Your task to perform on an android device: turn on the 24-hour format for clock Image 0: 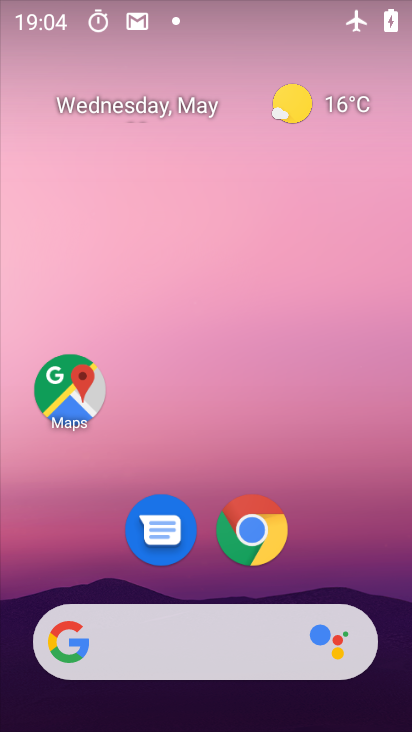
Step 0: drag from (181, 572) to (236, 239)
Your task to perform on an android device: turn on the 24-hour format for clock Image 1: 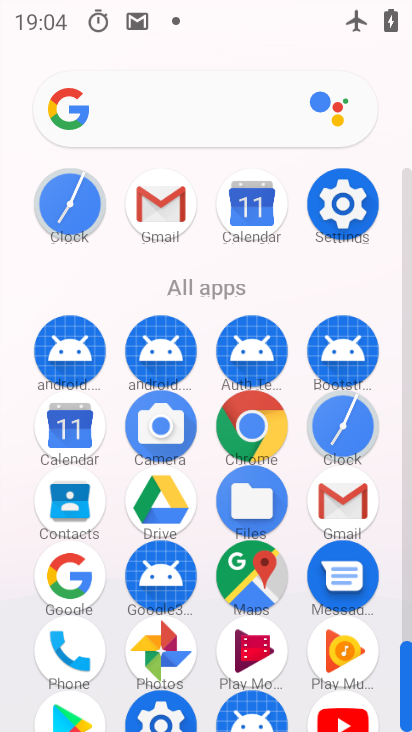
Step 1: click (349, 416)
Your task to perform on an android device: turn on the 24-hour format for clock Image 2: 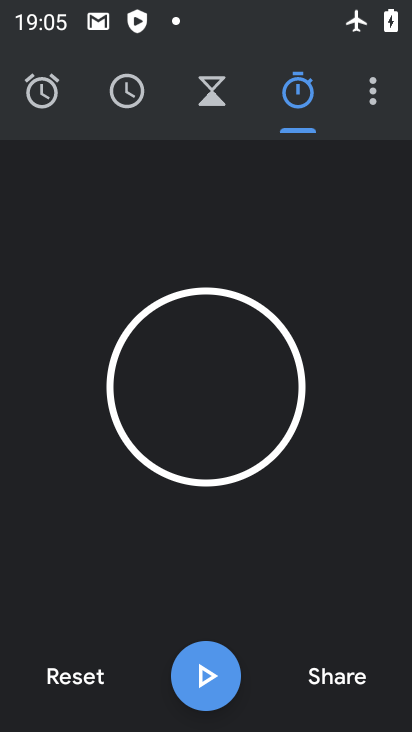
Step 2: click (366, 93)
Your task to perform on an android device: turn on the 24-hour format for clock Image 3: 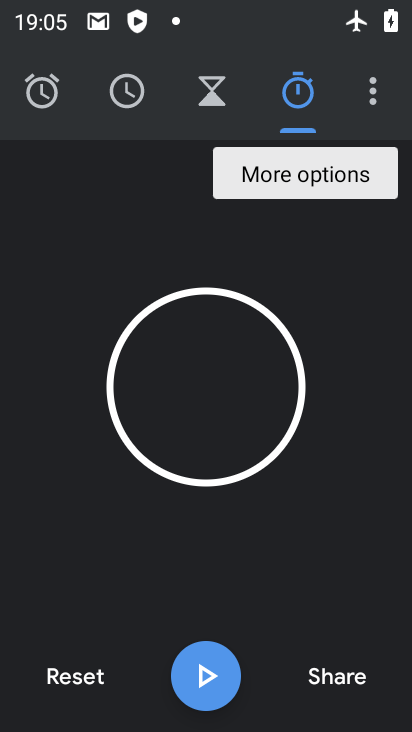
Step 3: click (366, 93)
Your task to perform on an android device: turn on the 24-hour format for clock Image 4: 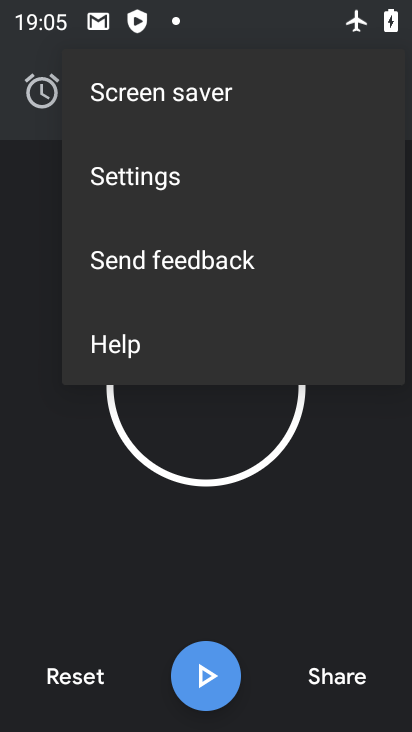
Step 4: click (168, 166)
Your task to perform on an android device: turn on the 24-hour format for clock Image 5: 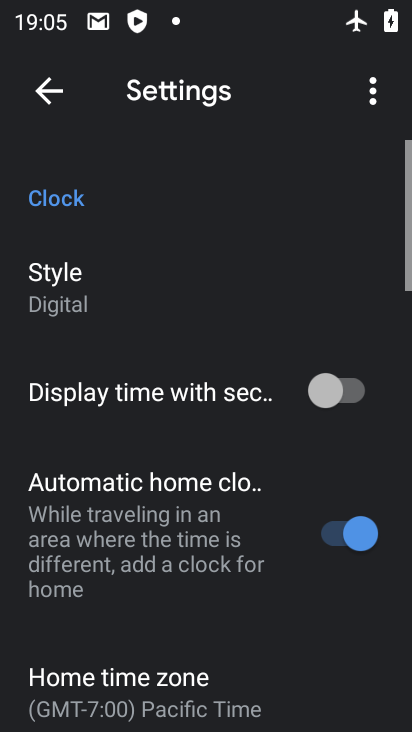
Step 5: drag from (208, 526) to (270, 174)
Your task to perform on an android device: turn on the 24-hour format for clock Image 6: 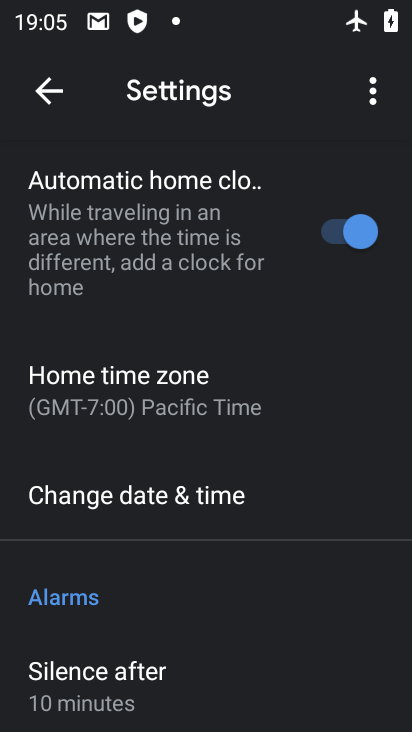
Step 6: drag from (260, 516) to (381, 201)
Your task to perform on an android device: turn on the 24-hour format for clock Image 7: 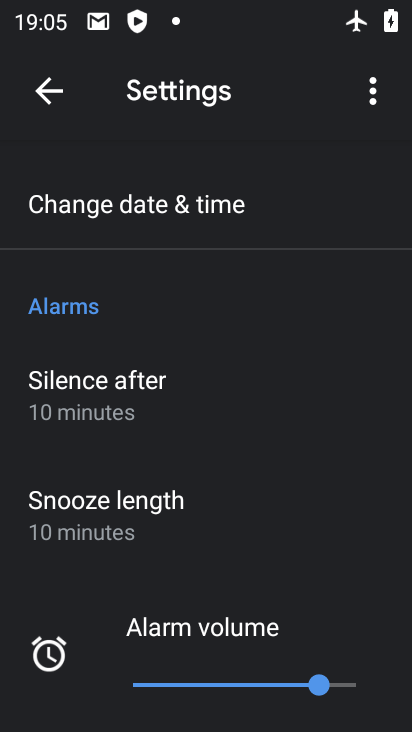
Step 7: click (208, 198)
Your task to perform on an android device: turn on the 24-hour format for clock Image 8: 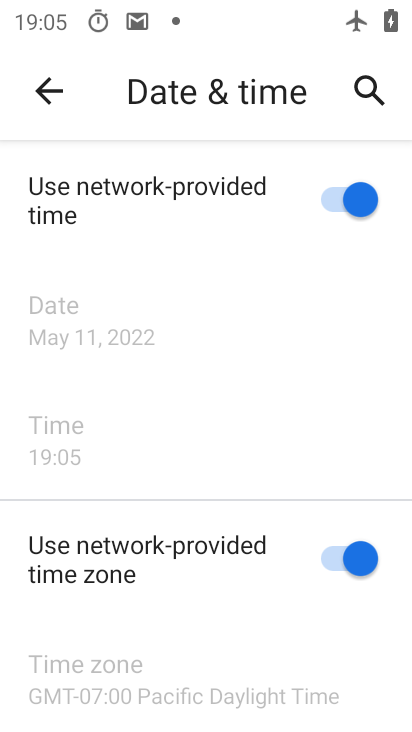
Step 8: task complete